Your task to perform on an android device: View the shopping cart on ebay.com. Search for "alienware aurora" on ebay.com, select the first entry, and add it to the cart. Image 0: 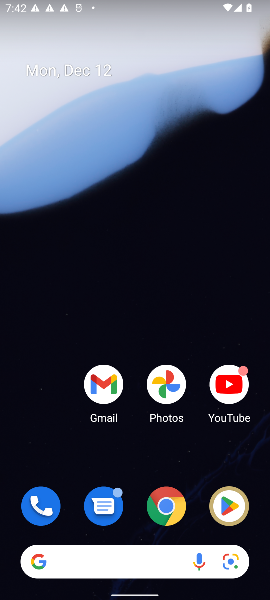
Step 0: click (165, 530)
Your task to perform on an android device: View the shopping cart on ebay.com. Search for "alienware aurora" on ebay.com, select the first entry, and add it to the cart. Image 1: 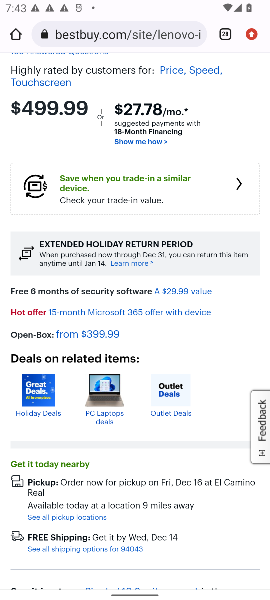
Step 1: click (132, 38)
Your task to perform on an android device: View the shopping cart on ebay.com. Search for "alienware aurora" on ebay.com, select the first entry, and add it to the cart. Image 2: 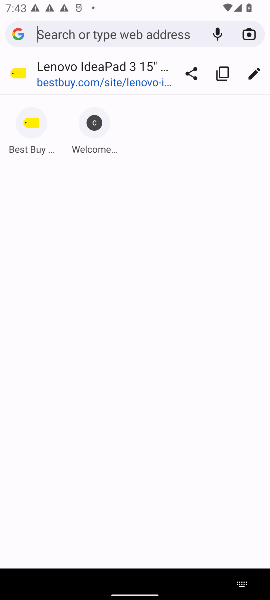
Step 2: type "ebay.com"
Your task to perform on an android device: View the shopping cart on ebay.com. Search for "alienware aurora" on ebay.com, select the first entry, and add it to the cart. Image 3: 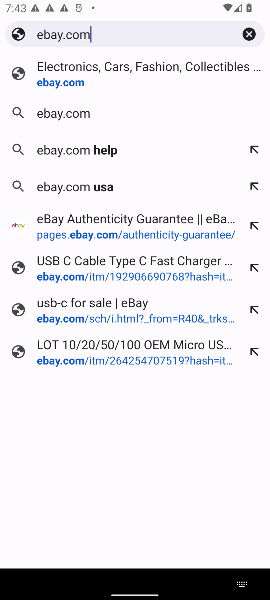
Step 3: click (104, 87)
Your task to perform on an android device: View the shopping cart on ebay.com. Search for "alienware aurora" on ebay.com, select the first entry, and add it to the cart. Image 4: 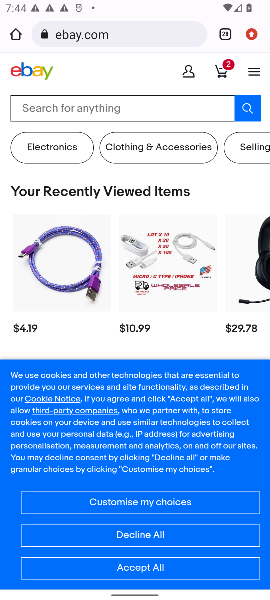
Step 4: click (46, 103)
Your task to perform on an android device: View the shopping cart on ebay.com. Search for "alienware aurora" on ebay.com, select the first entry, and add it to the cart. Image 5: 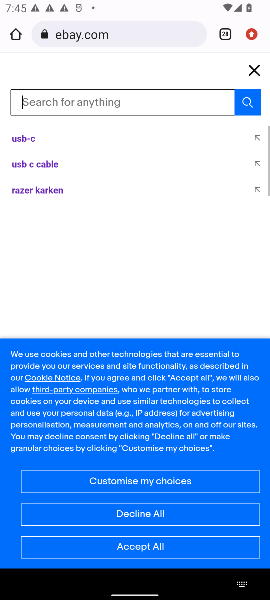
Step 5: type "alienware"
Your task to perform on an android device: View the shopping cart on ebay.com. Search for "alienware aurora" on ebay.com, select the first entry, and add it to the cart. Image 6: 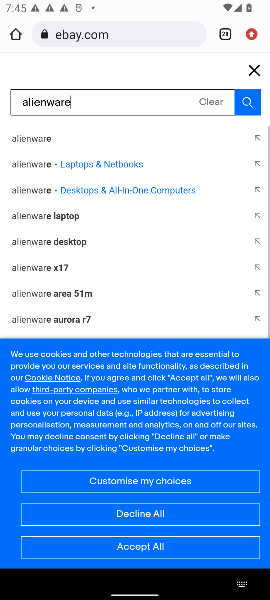
Step 6: click (49, 321)
Your task to perform on an android device: View the shopping cart on ebay.com. Search for "alienware aurora" on ebay.com, select the first entry, and add it to the cart. Image 7: 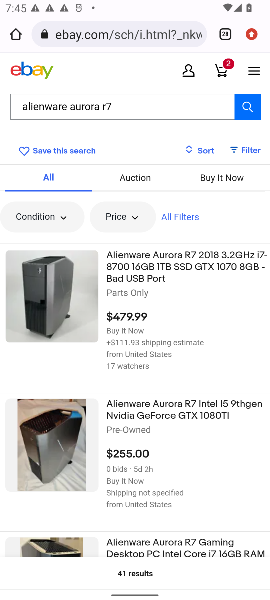
Step 7: click (49, 321)
Your task to perform on an android device: View the shopping cart on ebay.com. Search for "alienware aurora" on ebay.com, select the first entry, and add it to the cart. Image 8: 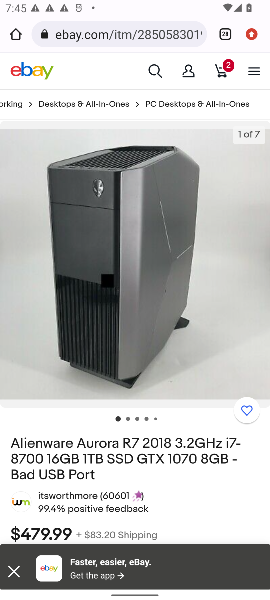
Step 8: click (1, 566)
Your task to perform on an android device: View the shopping cart on ebay.com. Search for "alienware aurora" on ebay.com, select the first entry, and add it to the cart. Image 9: 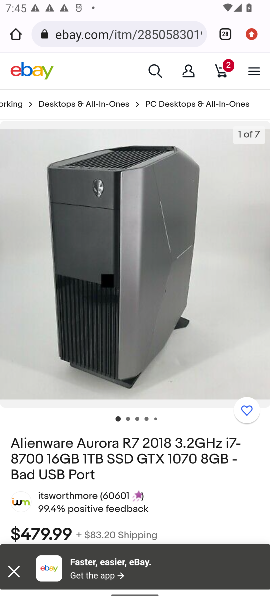
Step 9: click (11, 580)
Your task to perform on an android device: View the shopping cart on ebay.com. Search for "alienware aurora" on ebay.com, select the first entry, and add it to the cart. Image 10: 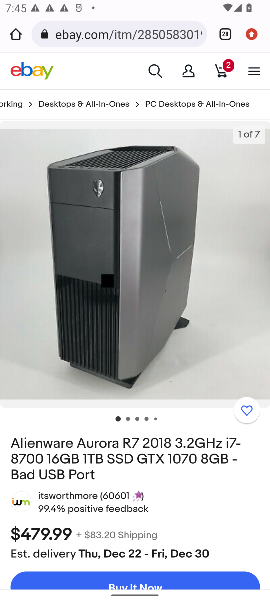
Step 10: drag from (196, 497) to (153, 189)
Your task to perform on an android device: View the shopping cart on ebay.com. Search for "alienware aurora" on ebay.com, select the first entry, and add it to the cart. Image 11: 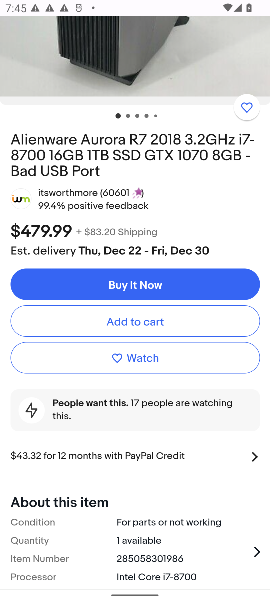
Step 11: click (162, 319)
Your task to perform on an android device: View the shopping cart on ebay.com. Search for "alienware aurora" on ebay.com, select the first entry, and add it to the cart. Image 12: 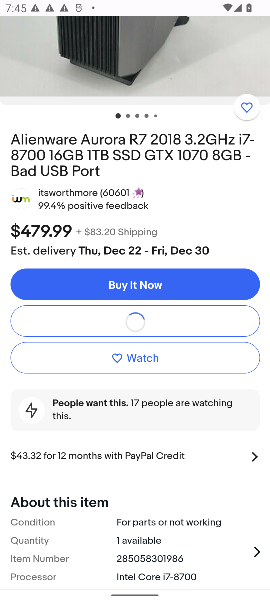
Step 12: task complete